Your task to perform on an android device: Open internet settings Image 0: 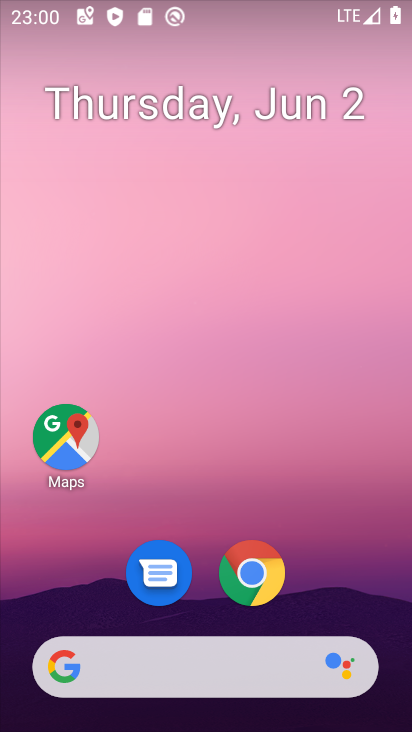
Step 0: drag from (345, 543) to (343, 73)
Your task to perform on an android device: Open internet settings Image 1: 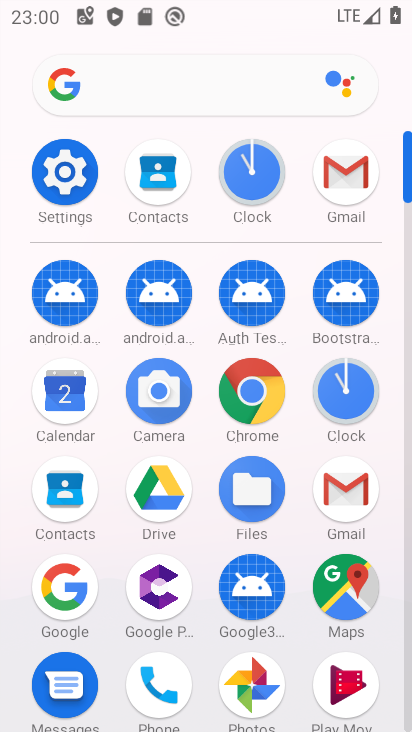
Step 1: click (51, 172)
Your task to perform on an android device: Open internet settings Image 2: 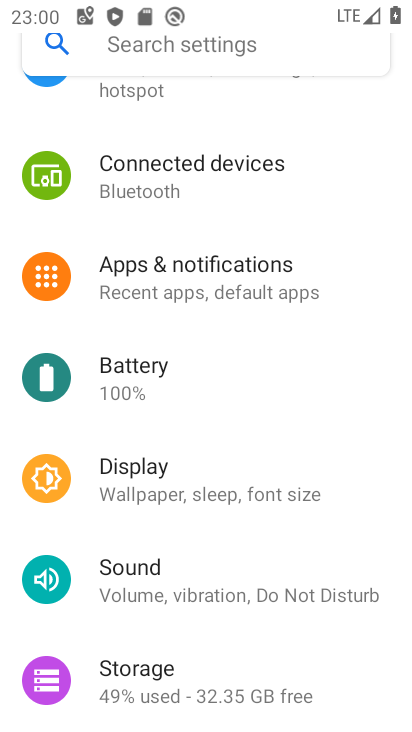
Step 2: drag from (175, 121) to (171, 349)
Your task to perform on an android device: Open internet settings Image 3: 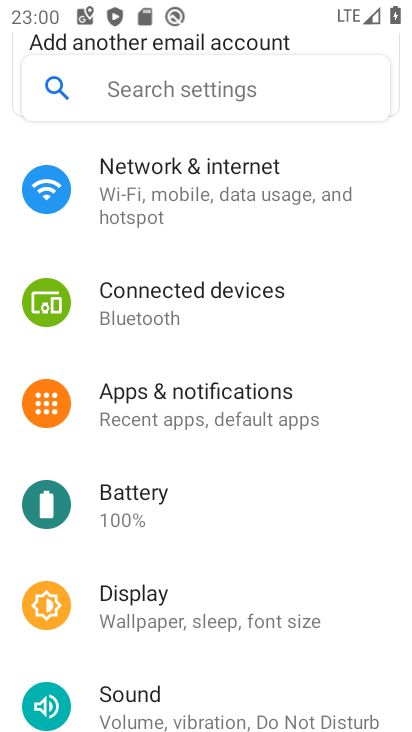
Step 3: click (244, 169)
Your task to perform on an android device: Open internet settings Image 4: 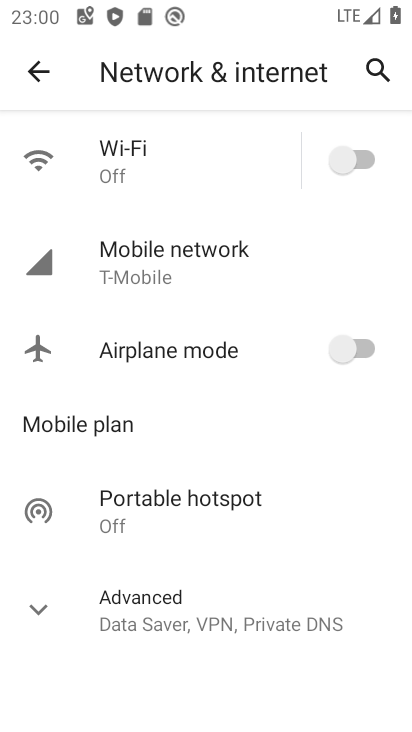
Step 4: task complete